Your task to perform on an android device: Open battery settings Image 0: 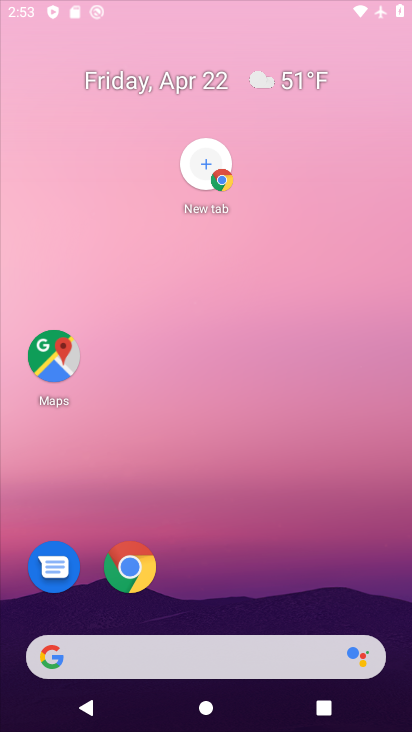
Step 0: click (127, 2)
Your task to perform on an android device: Open battery settings Image 1: 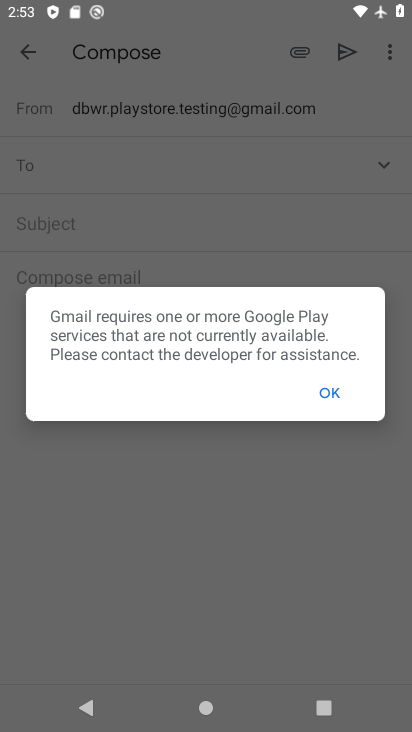
Step 1: click (330, 394)
Your task to perform on an android device: Open battery settings Image 2: 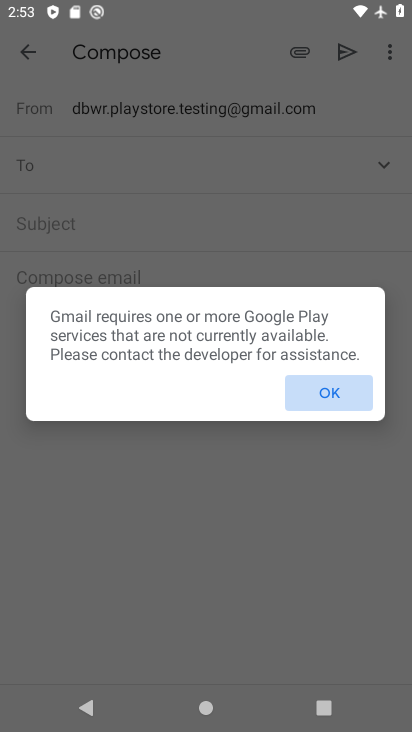
Step 2: click (330, 394)
Your task to perform on an android device: Open battery settings Image 3: 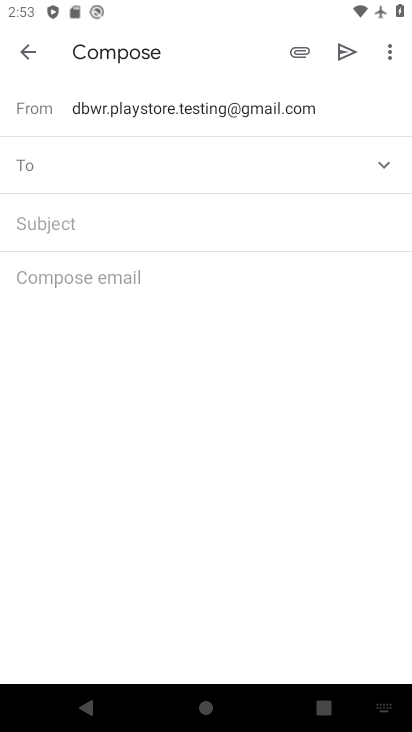
Step 3: click (19, 43)
Your task to perform on an android device: Open battery settings Image 4: 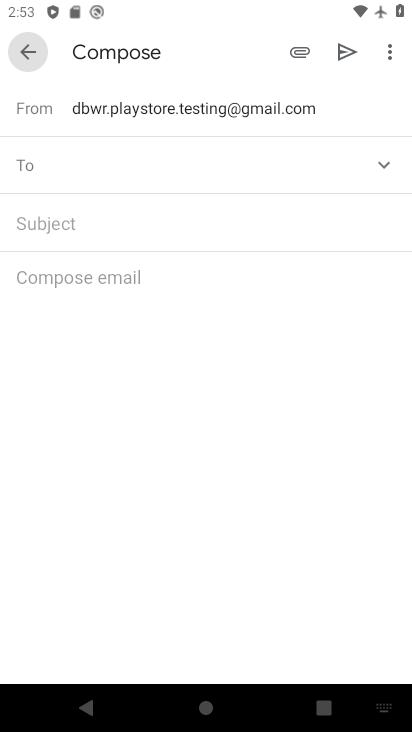
Step 4: click (20, 44)
Your task to perform on an android device: Open battery settings Image 5: 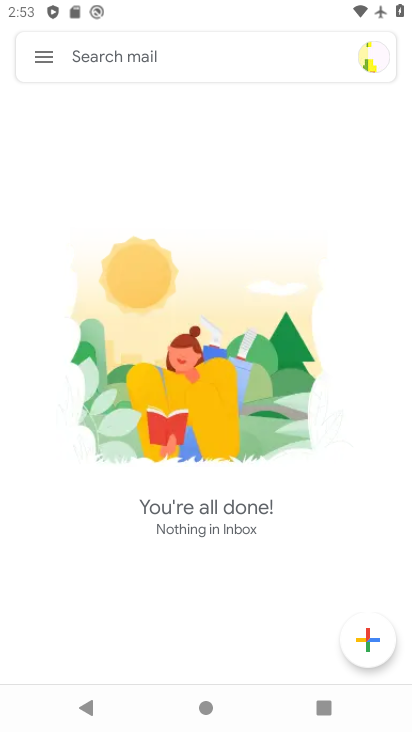
Step 5: press home button
Your task to perform on an android device: Open battery settings Image 6: 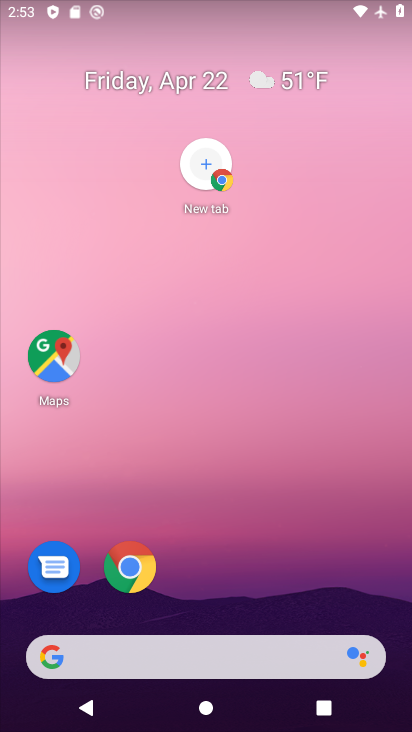
Step 6: drag from (223, 605) to (117, 115)
Your task to perform on an android device: Open battery settings Image 7: 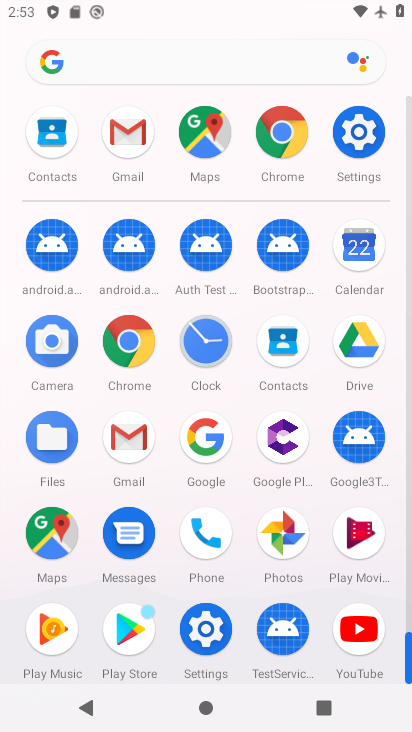
Step 7: click (366, 136)
Your task to perform on an android device: Open battery settings Image 8: 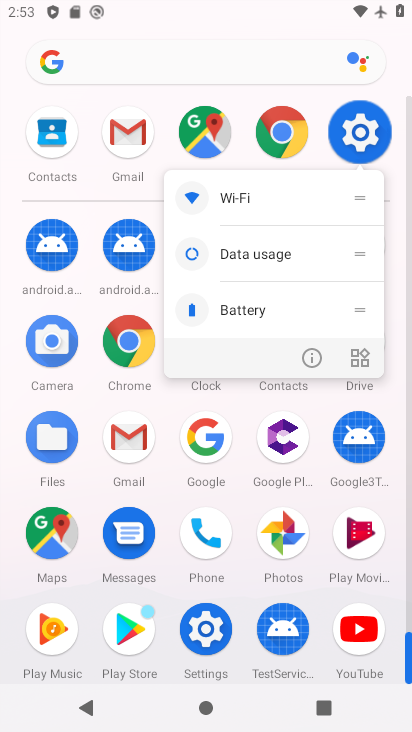
Step 8: click (366, 136)
Your task to perform on an android device: Open battery settings Image 9: 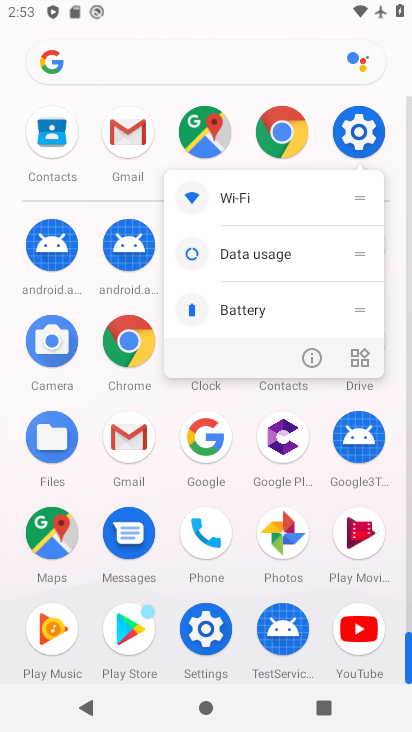
Step 9: click (366, 136)
Your task to perform on an android device: Open battery settings Image 10: 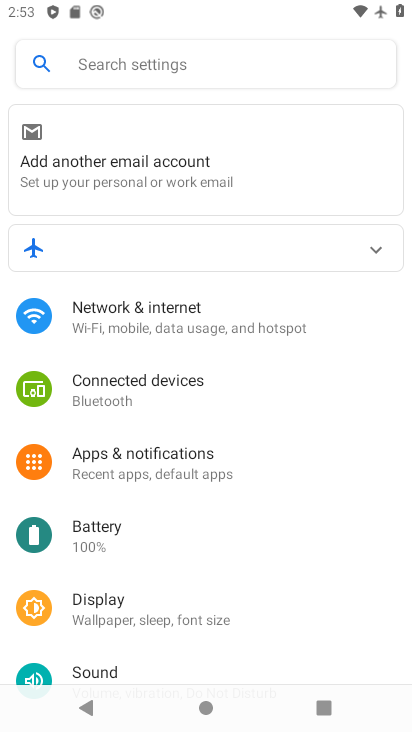
Step 10: click (136, 466)
Your task to perform on an android device: Open battery settings Image 11: 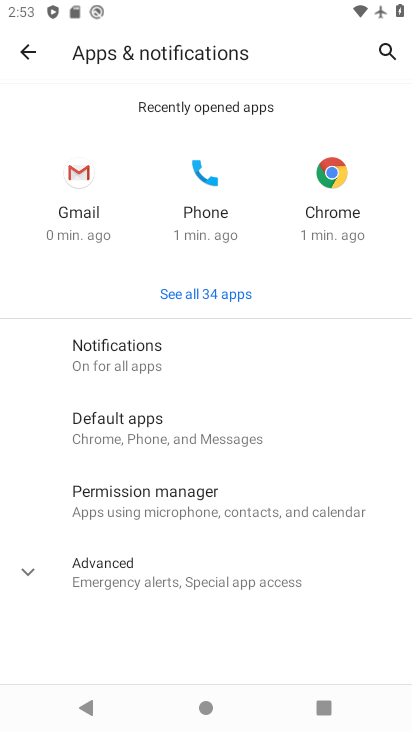
Step 11: click (20, 53)
Your task to perform on an android device: Open battery settings Image 12: 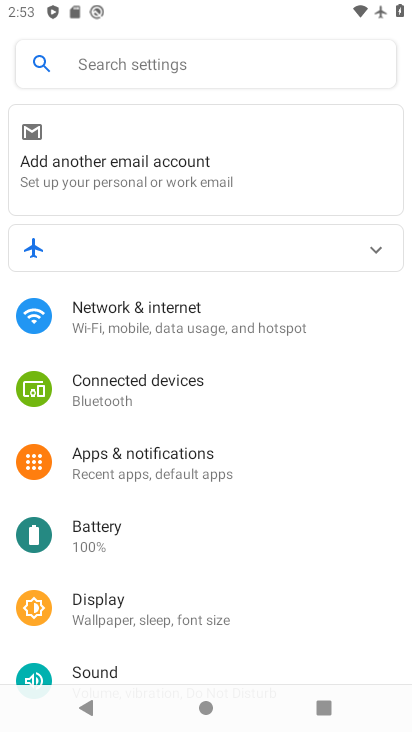
Step 12: drag from (142, 562) to (96, 245)
Your task to perform on an android device: Open battery settings Image 13: 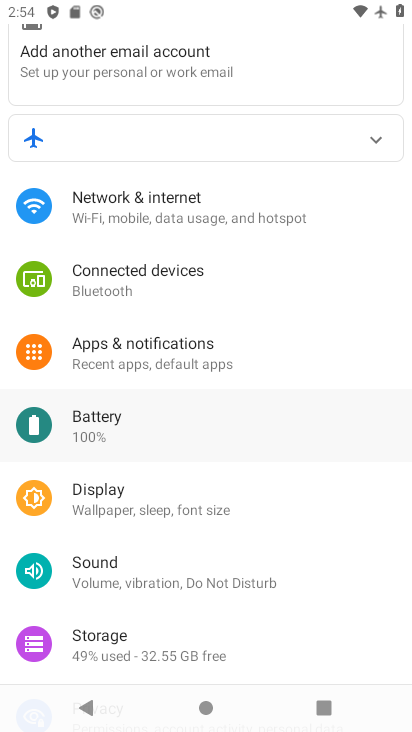
Step 13: drag from (182, 461) to (167, 210)
Your task to perform on an android device: Open battery settings Image 14: 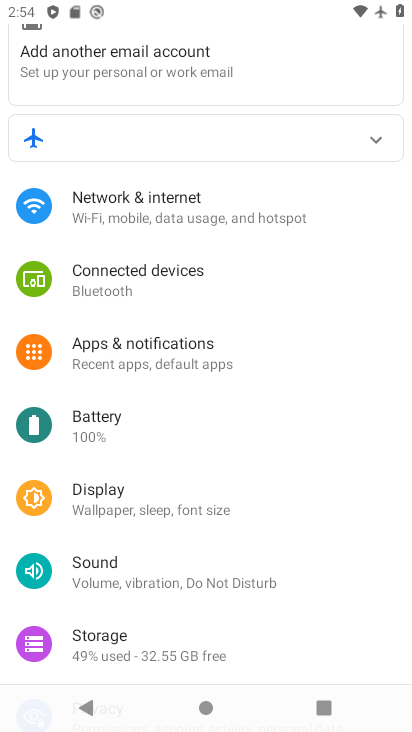
Step 14: click (96, 431)
Your task to perform on an android device: Open battery settings Image 15: 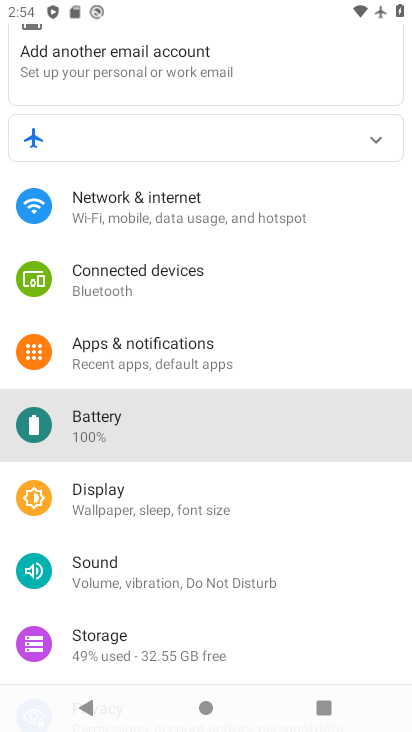
Step 15: click (96, 431)
Your task to perform on an android device: Open battery settings Image 16: 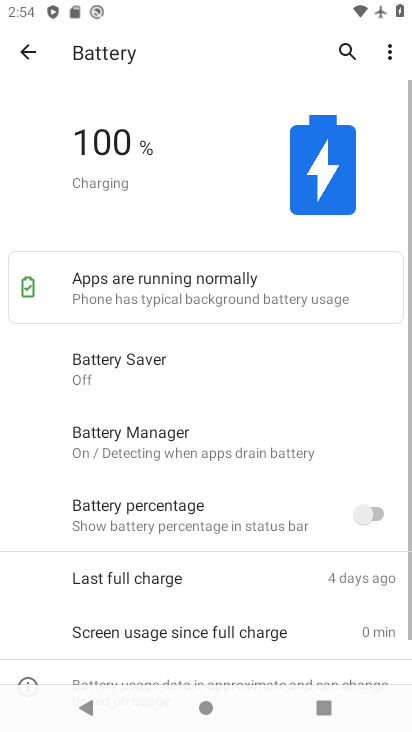
Step 16: click (96, 431)
Your task to perform on an android device: Open battery settings Image 17: 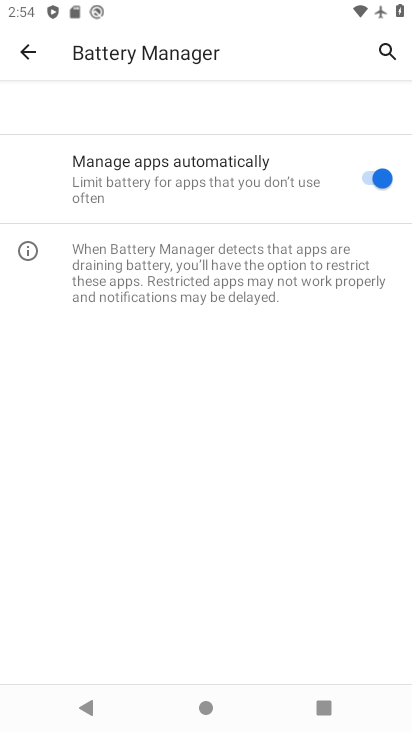
Step 17: drag from (146, 537) to (73, 139)
Your task to perform on an android device: Open battery settings Image 18: 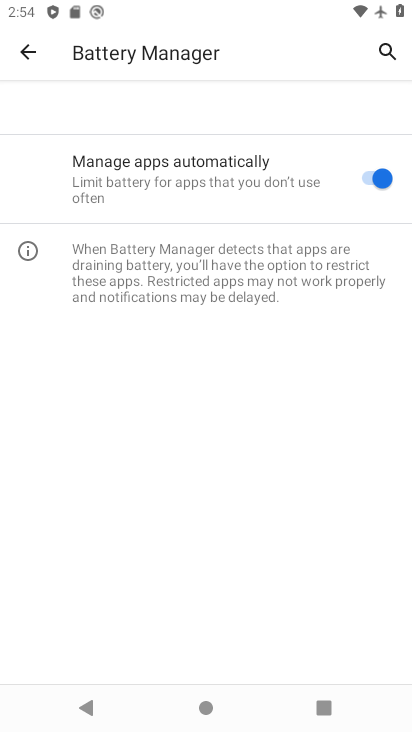
Step 18: click (23, 50)
Your task to perform on an android device: Open battery settings Image 19: 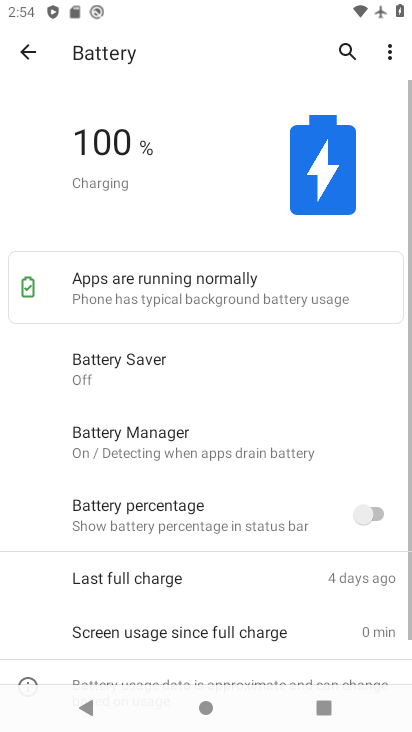
Step 19: task complete